Your task to perform on an android device: Open ESPN.com Image 0: 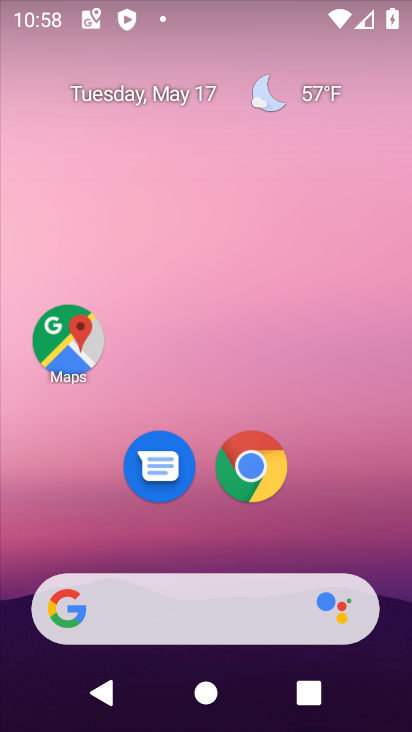
Step 0: click (251, 461)
Your task to perform on an android device: Open ESPN.com Image 1: 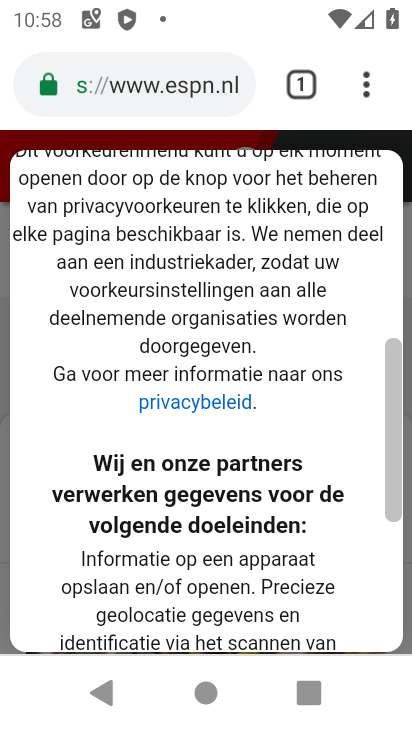
Step 1: drag from (237, 543) to (184, 172)
Your task to perform on an android device: Open ESPN.com Image 2: 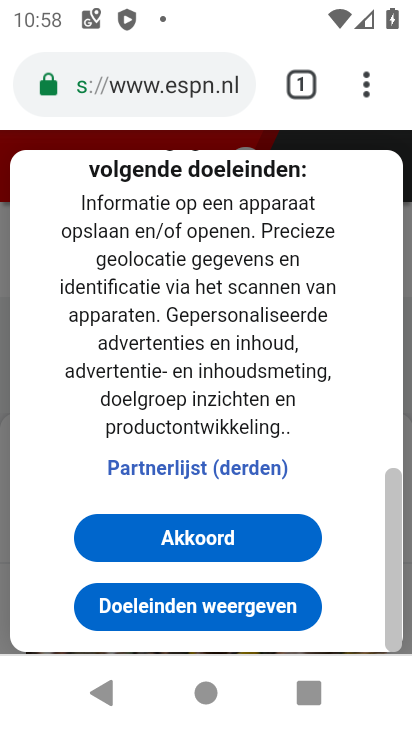
Step 2: click (234, 540)
Your task to perform on an android device: Open ESPN.com Image 3: 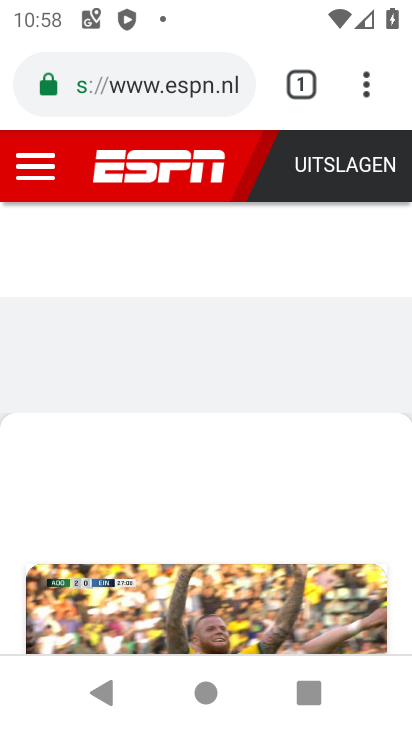
Step 3: task complete